Your task to perform on an android device: Do I have any events this weekend? Image 0: 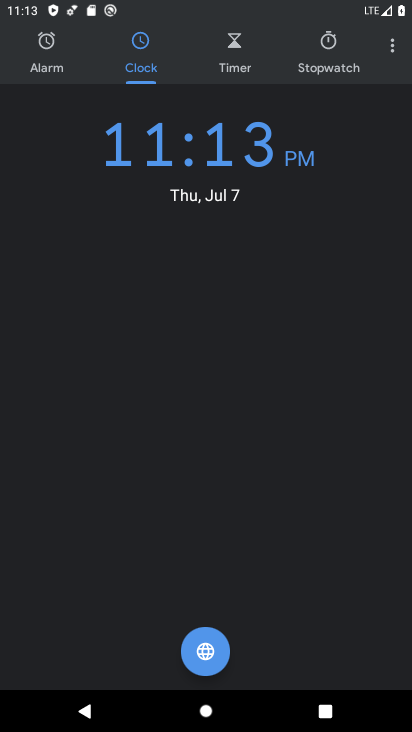
Step 0: press home button
Your task to perform on an android device: Do I have any events this weekend? Image 1: 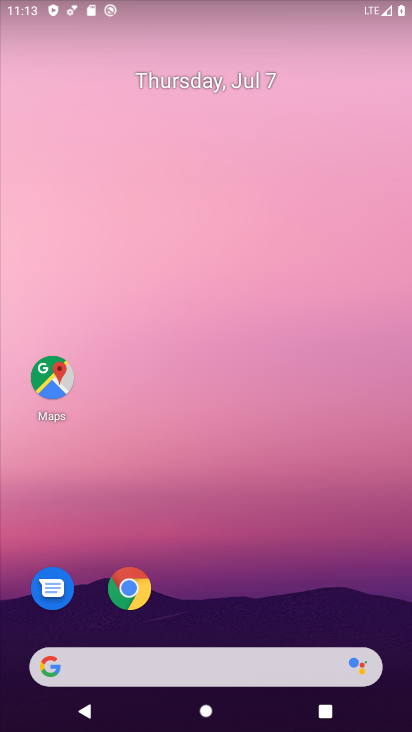
Step 1: drag from (218, 651) to (384, 460)
Your task to perform on an android device: Do I have any events this weekend? Image 2: 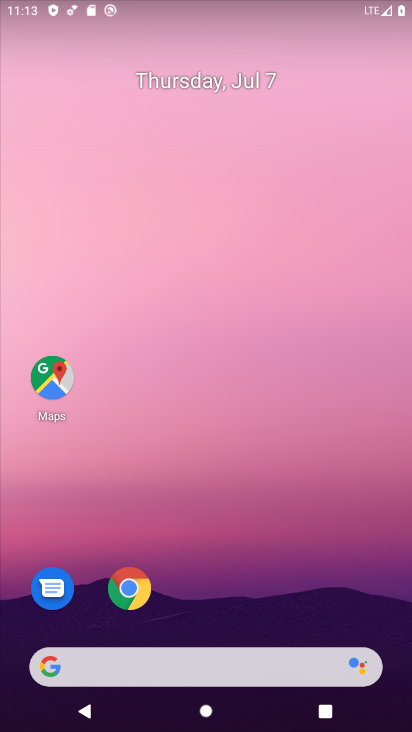
Step 2: drag from (236, 662) to (296, 46)
Your task to perform on an android device: Do I have any events this weekend? Image 3: 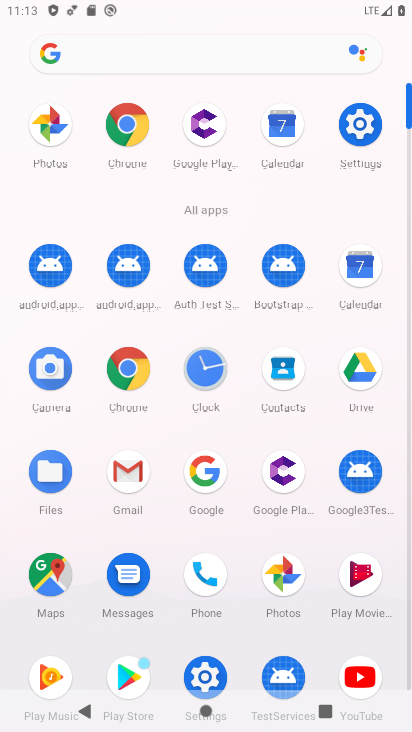
Step 3: click (361, 286)
Your task to perform on an android device: Do I have any events this weekend? Image 4: 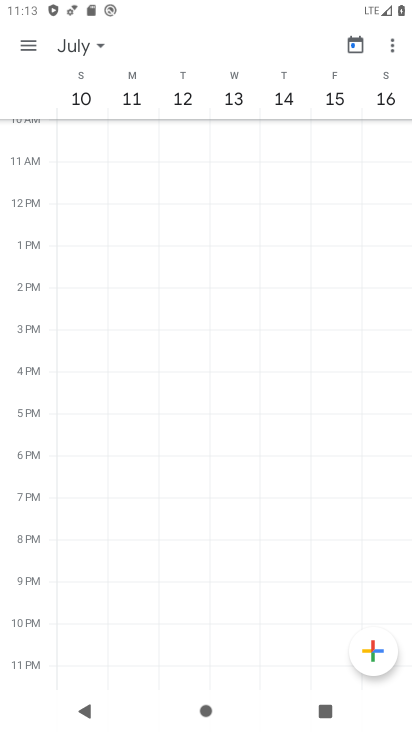
Step 4: click (359, 39)
Your task to perform on an android device: Do I have any events this weekend? Image 5: 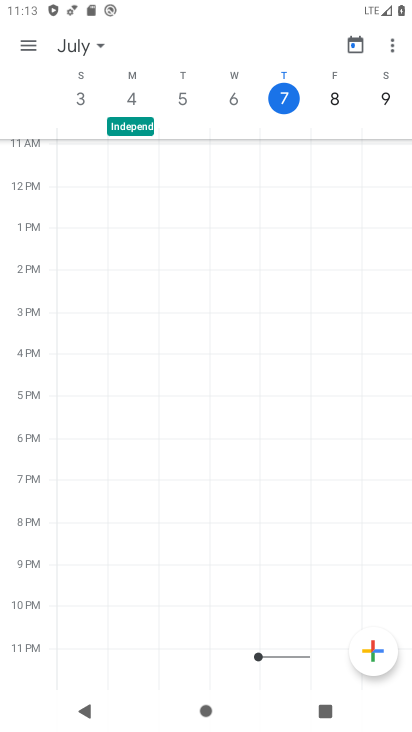
Step 5: task complete